Your task to perform on an android device: empty trash in the gmail app Image 0: 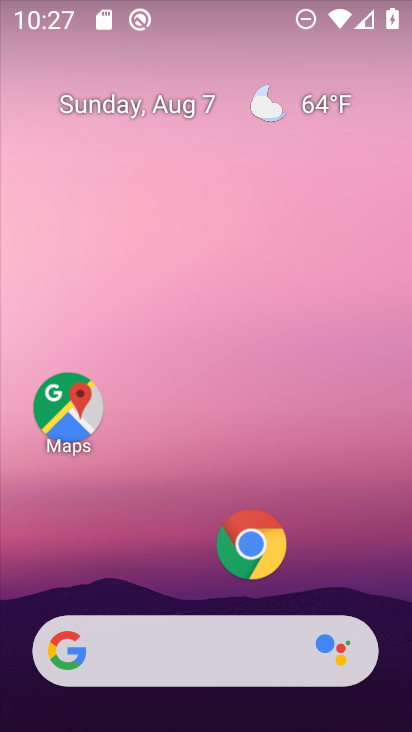
Step 0: drag from (221, 586) to (412, 657)
Your task to perform on an android device: empty trash in the gmail app Image 1: 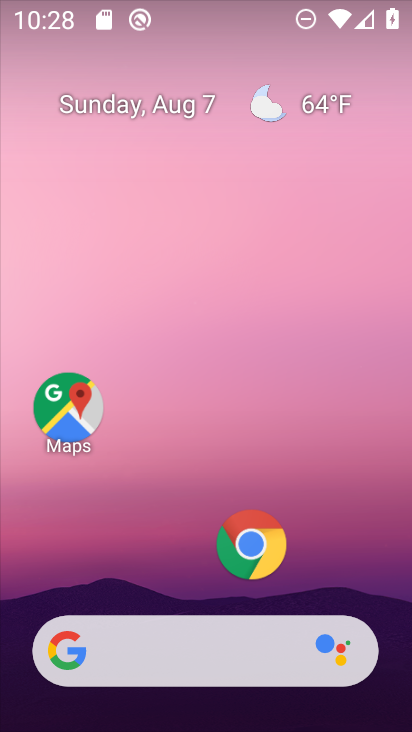
Step 1: drag from (238, 621) to (274, 17)
Your task to perform on an android device: empty trash in the gmail app Image 2: 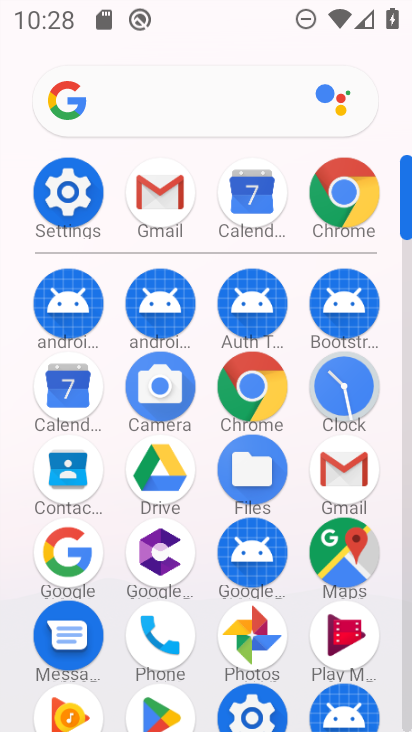
Step 2: click (335, 464)
Your task to perform on an android device: empty trash in the gmail app Image 3: 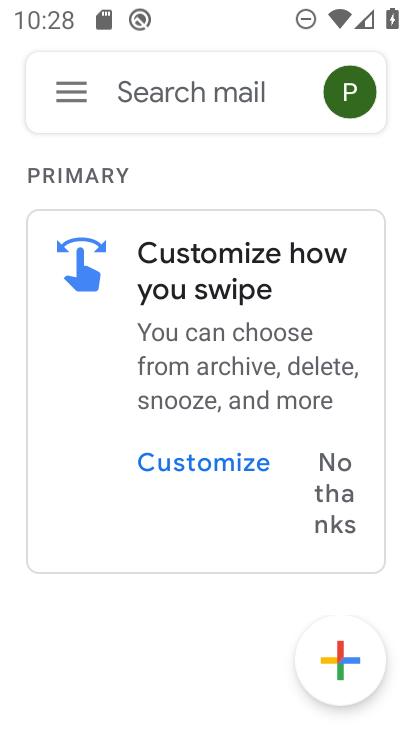
Step 3: click (69, 101)
Your task to perform on an android device: empty trash in the gmail app Image 4: 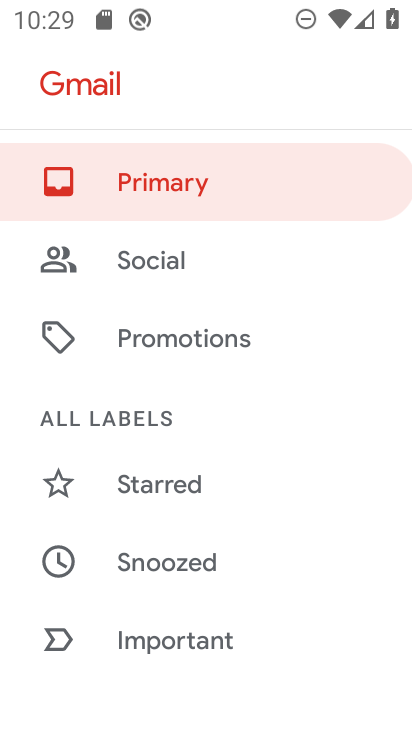
Step 4: drag from (140, 534) to (96, 122)
Your task to perform on an android device: empty trash in the gmail app Image 5: 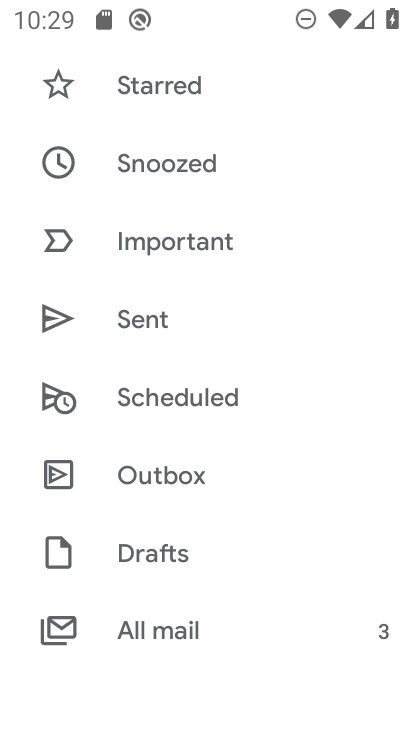
Step 5: drag from (131, 597) to (115, 144)
Your task to perform on an android device: empty trash in the gmail app Image 6: 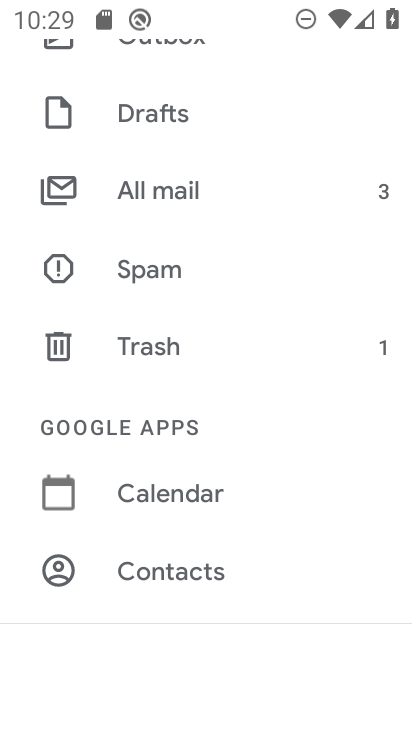
Step 6: click (134, 344)
Your task to perform on an android device: empty trash in the gmail app Image 7: 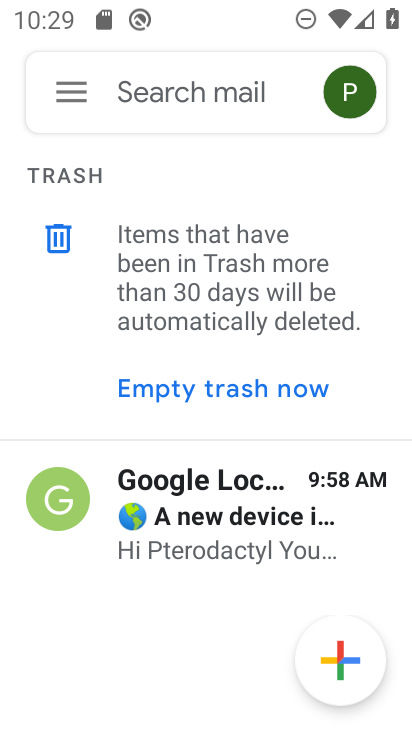
Step 7: click (163, 399)
Your task to perform on an android device: empty trash in the gmail app Image 8: 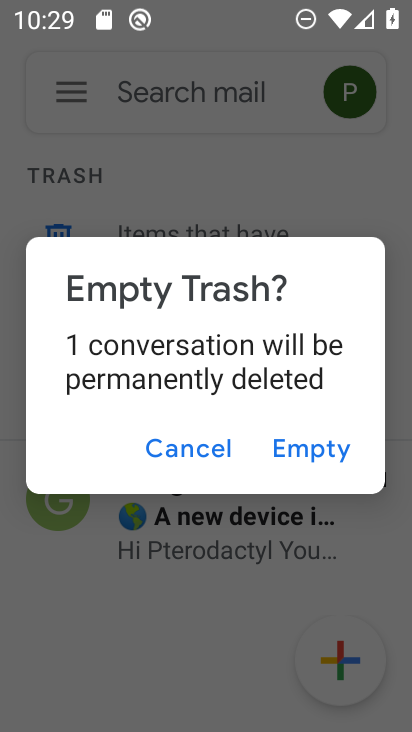
Step 8: click (281, 450)
Your task to perform on an android device: empty trash in the gmail app Image 9: 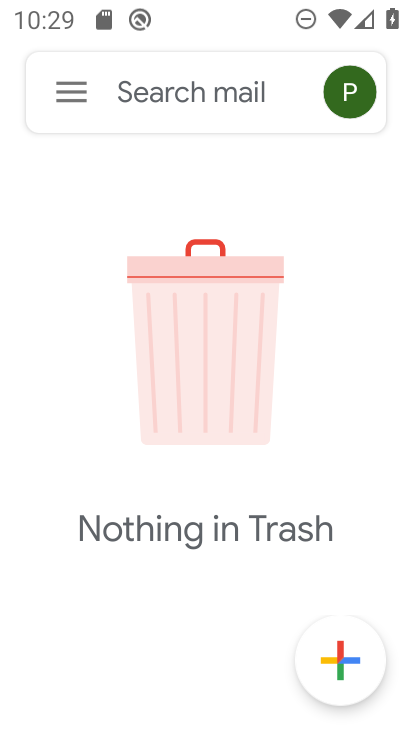
Step 9: task complete